Your task to perform on an android device: toggle airplane mode Image 0: 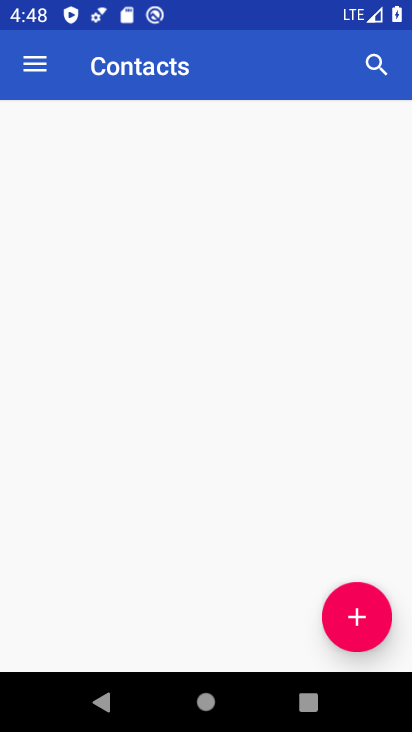
Step 0: drag from (218, 729) to (222, 331)
Your task to perform on an android device: toggle airplane mode Image 1: 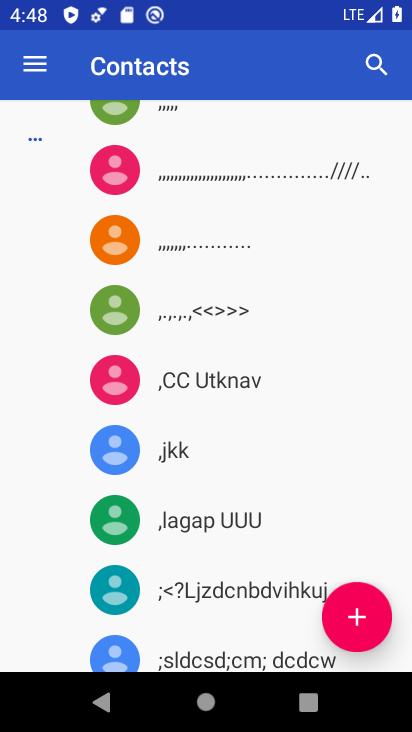
Step 1: press home button
Your task to perform on an android device: toggle airplane mode Image 2: 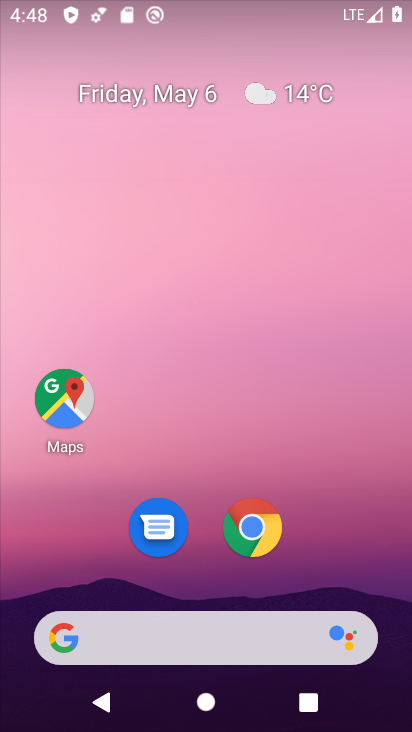
Step 2: drag from (235, 726) to (242, 122)
Your task to perform on an android device: toggle airplane mode Image 3: 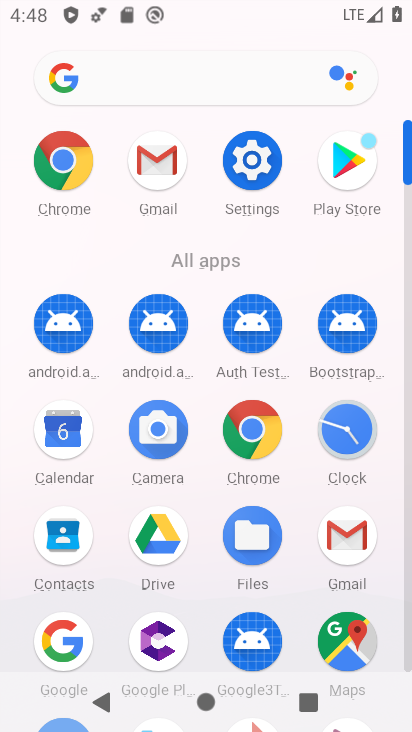
Step 3: click (256, 160)
Your task to perform on an android device: toggle airplane mode Image 4: 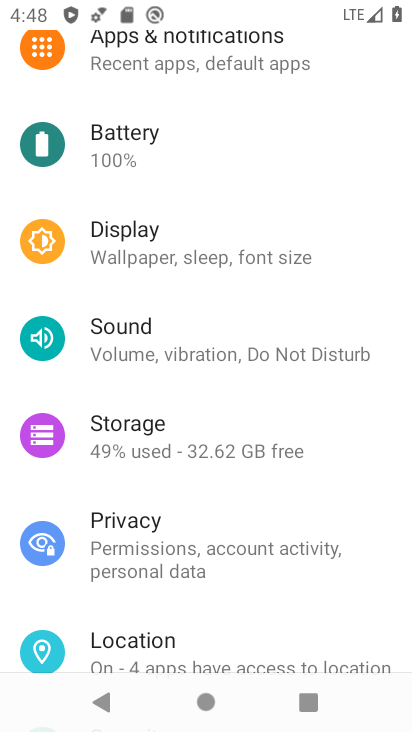
Step 4: drag from (211, 97) to (210, 471)
Your task to perform on an android device: toggle airplane mode Image 5: 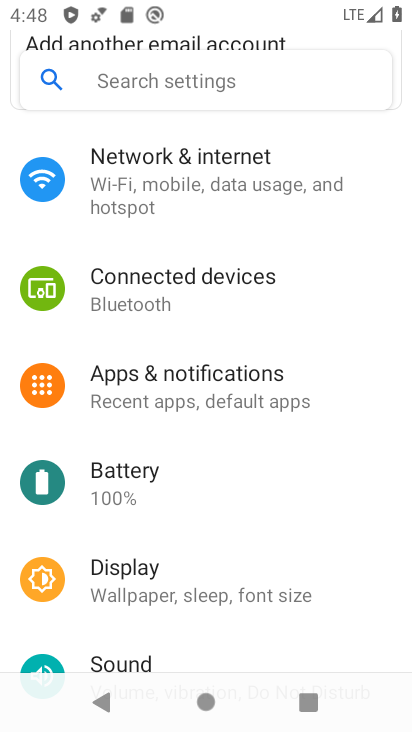
Step 5: drag from (233, 160) to (226, 400)
Your task to perform on an android device: toggle airplane mode Image 6: 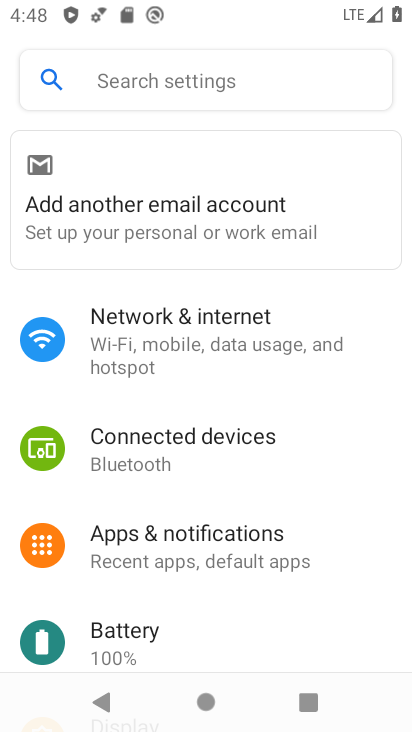
Step 6: click (203, 327)
Your task to perform on an android device: toggle airplane mode Image 7: 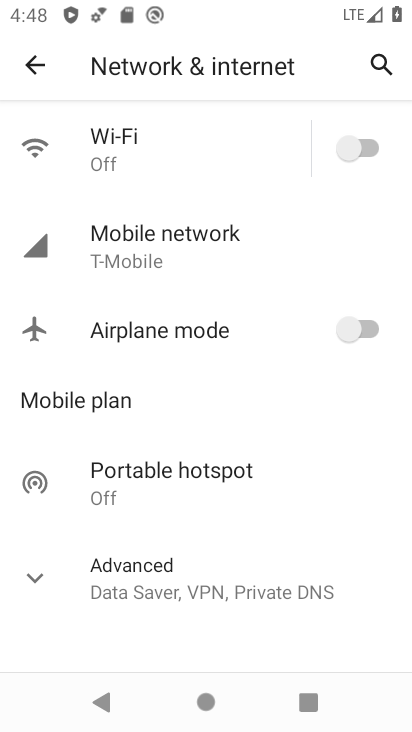
Step 7: click (358, 330)
Your task to perform on an android device: toggle airplane mode Image 8: 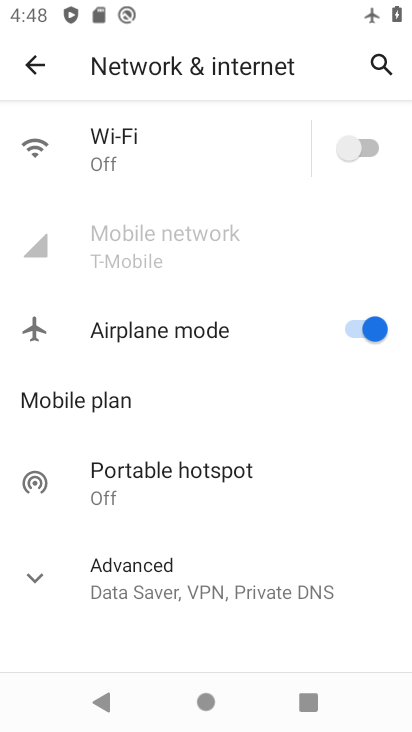
Step 8: task complete